Your task to perform on an android device: turn off notifications in google photos Image 0: 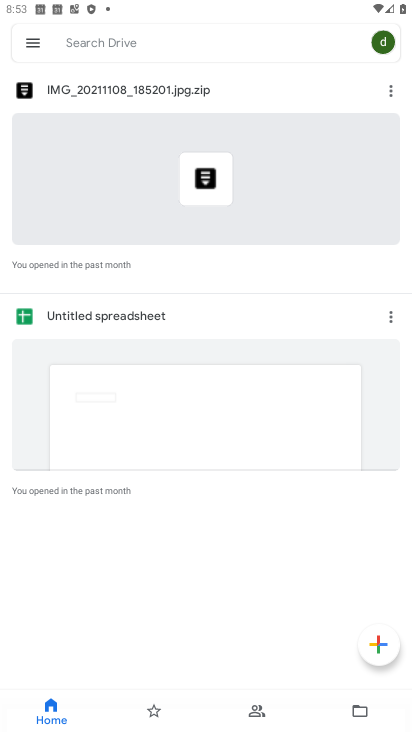
Step 0: drag from (162, 554) to (189, 219)
Your task to perform on an android device: turn off notifications in google photos Image 1: 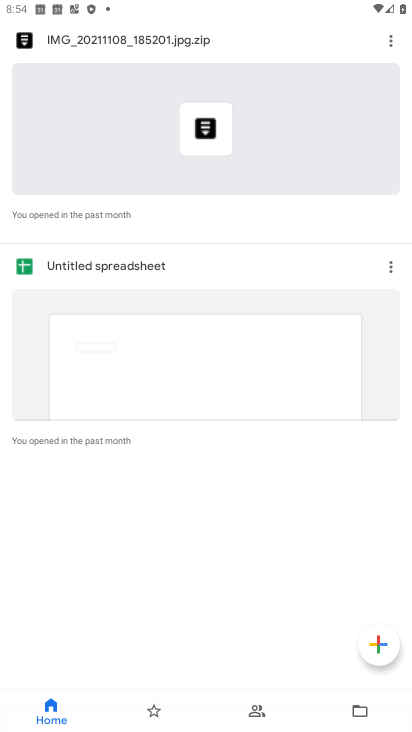
Step 1: drag from (63, 56) to (197, 483)
Your task to perform on an android device: turn off notifications in google photos Image 2: 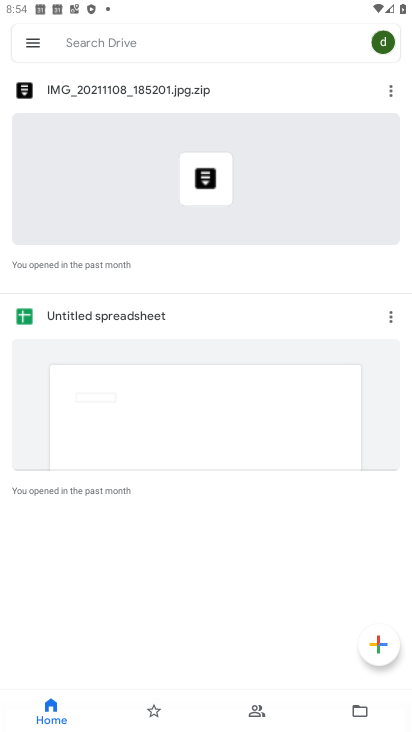
Step 2: click (19, 48)
Your task to perform on an android device: turn off notifications in google photos Image 3: 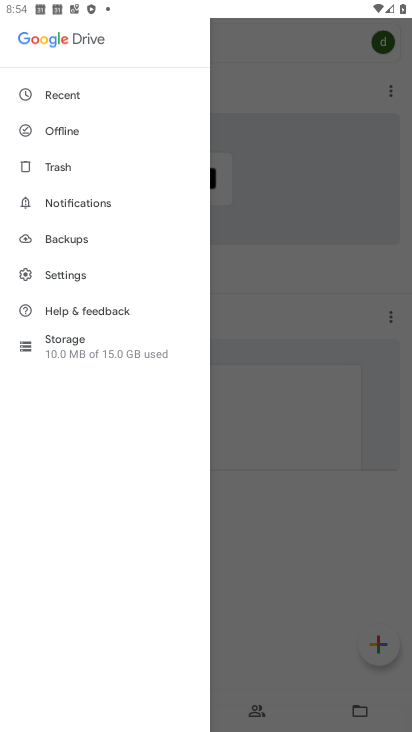
Step 3: click (79, 280)
Your task to perform on an android device: turn off notifications in google photos Image 4: 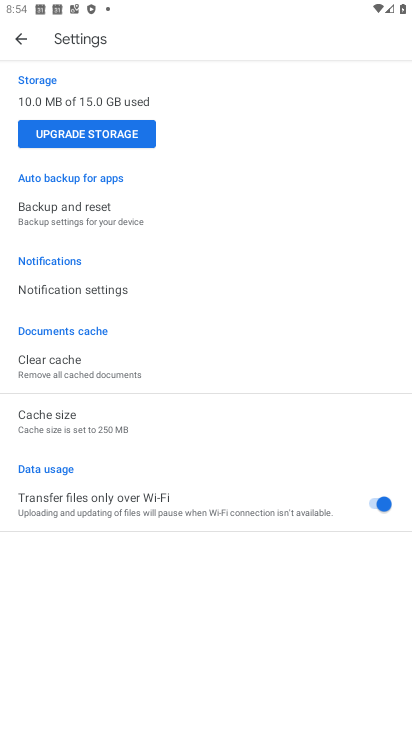
Step 4: click (88, 289)
Your task to perform on an android device: turn off notifications in google photos Image 5: 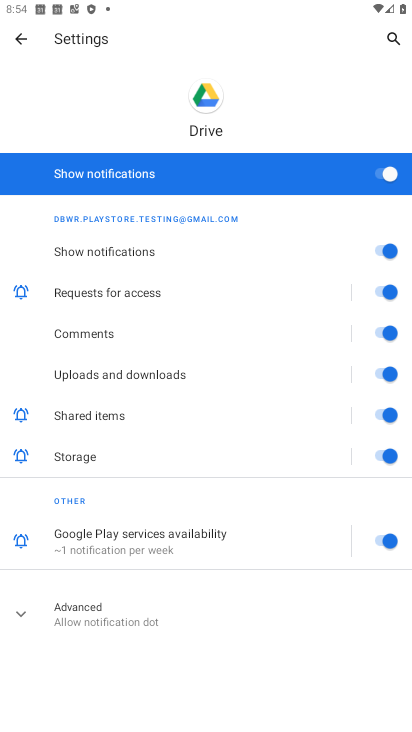
Step 5: click (384, 168)
Your task to perform on an android device: turn off notifications in google photos Image 6: 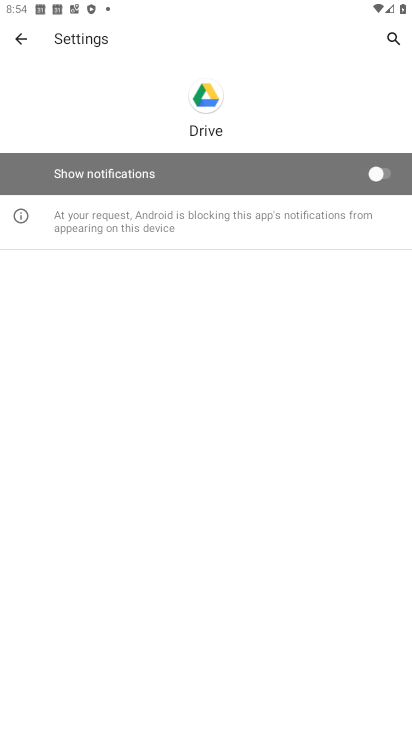
Step 6: task complete